Your task to perform on an android device: What's the price of the new iPhone Image 0: 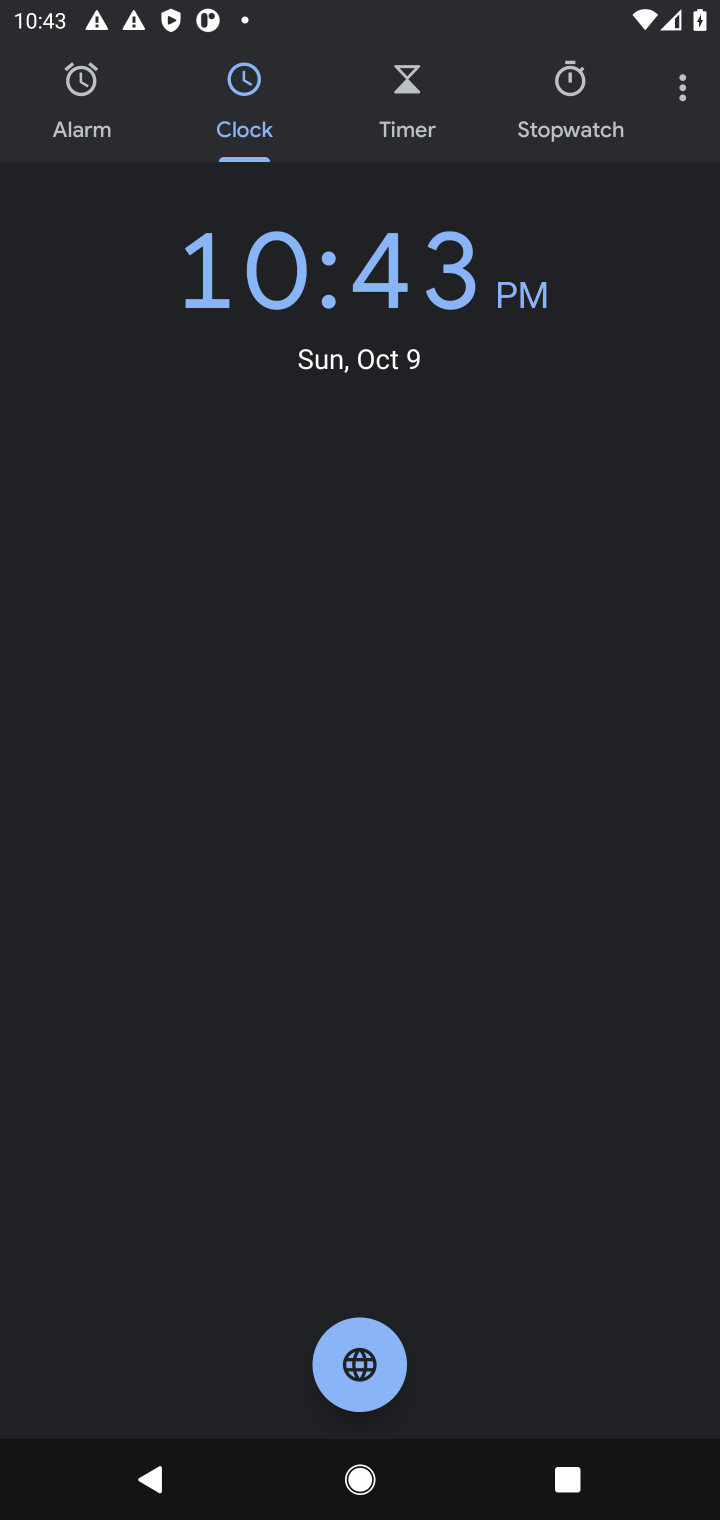
Step 0: press home button
Your task to perform on an android device: What's the price of the new iPhone Image 1: 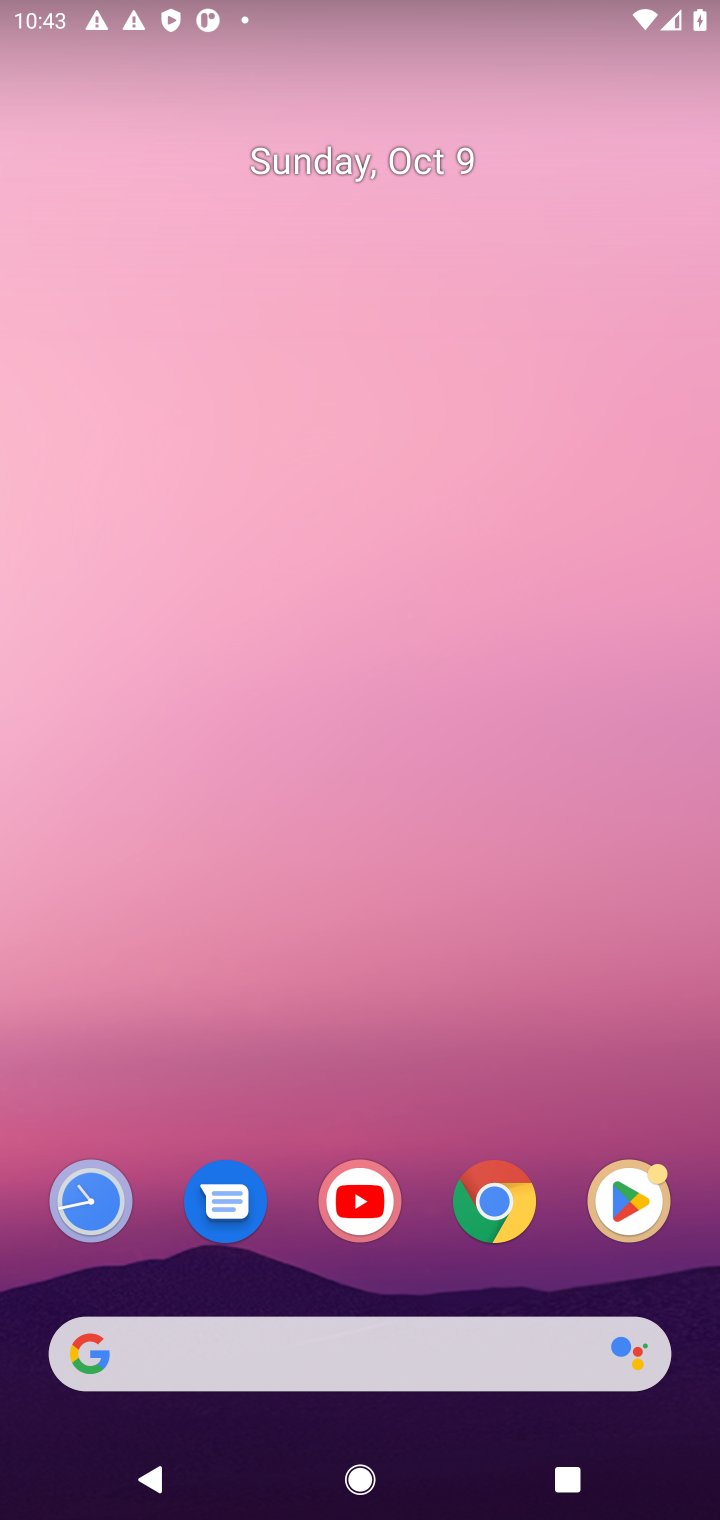
Step 1: click (476, 1199)
Your task to perform on an android device: What's the price of the new iPhone Image 2: 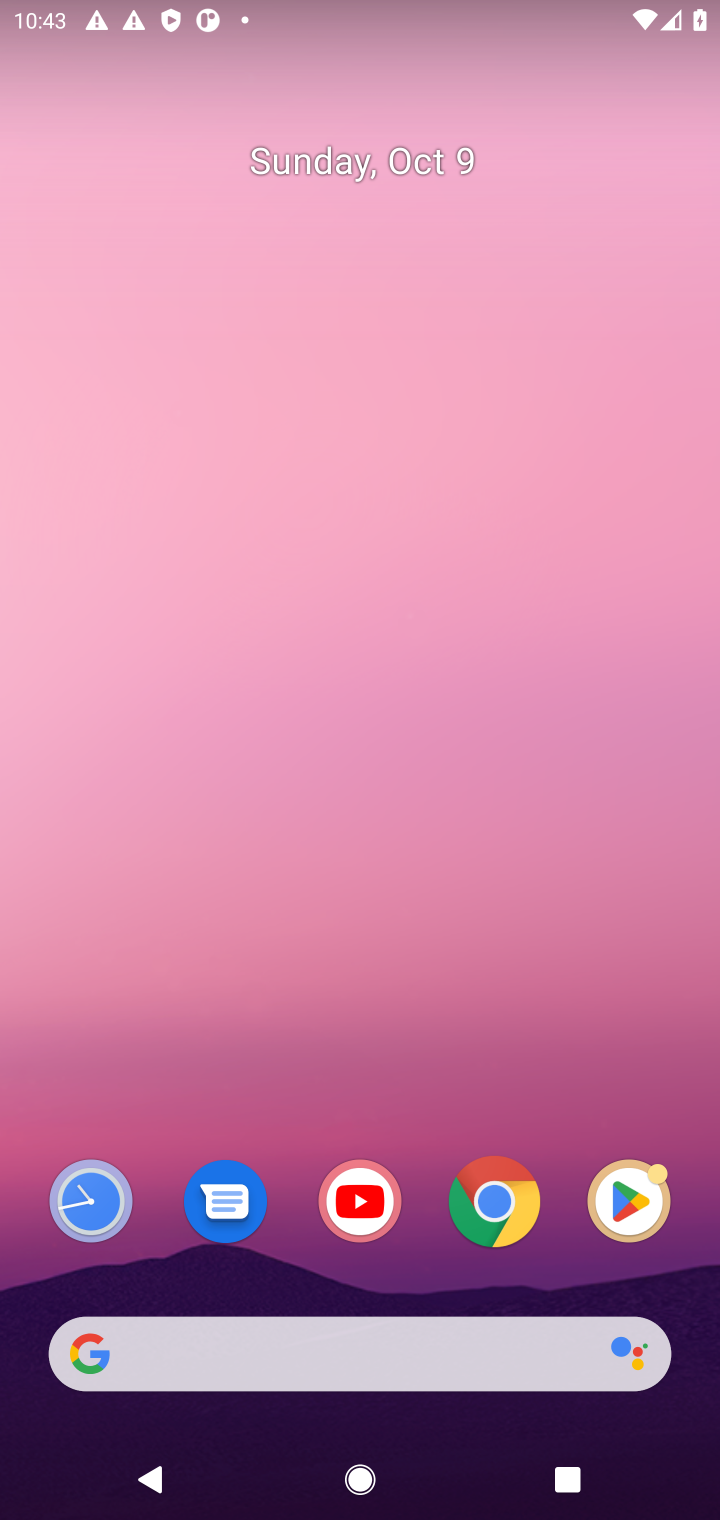
Step 2: click (476, 1199)
Your task to perform on an android device: What's the price of the new iPhone Image 3: 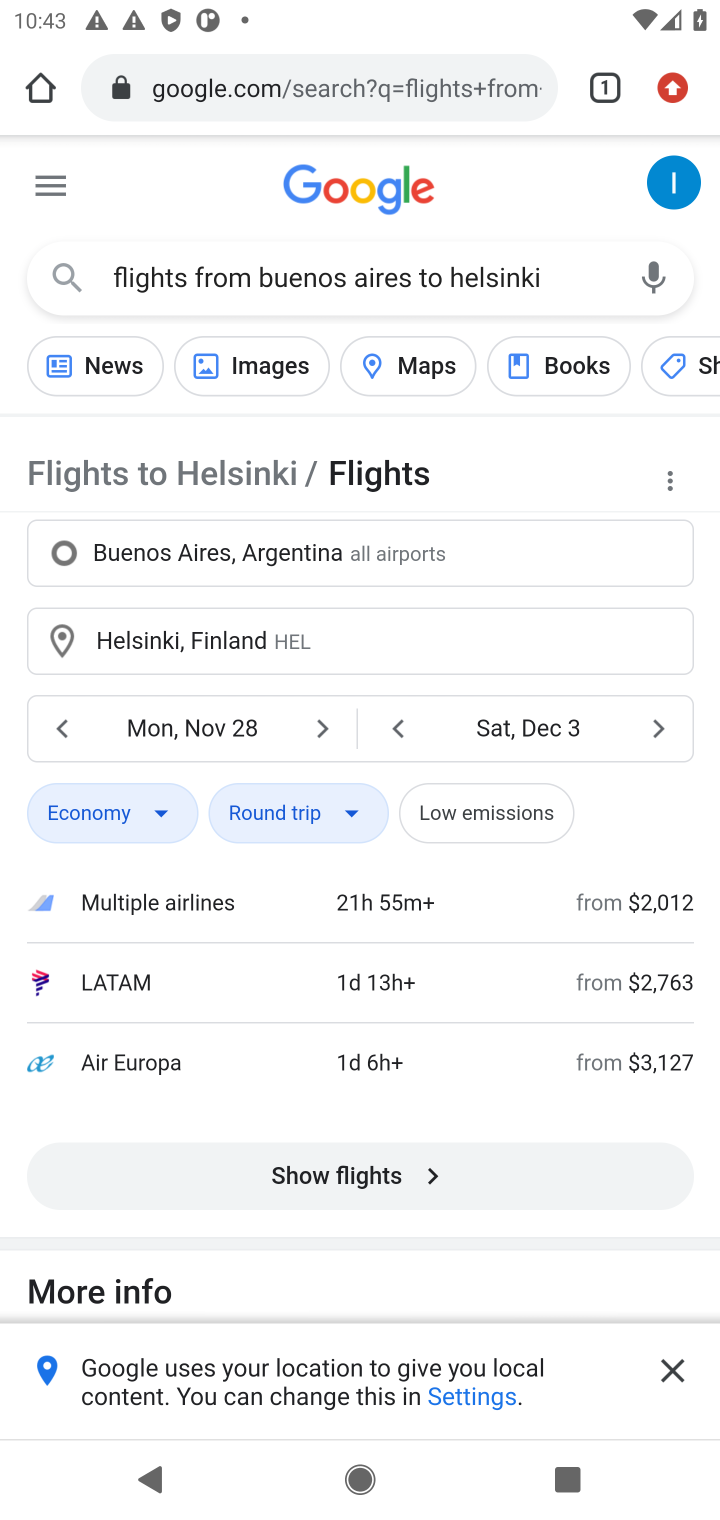
Step 3: click (348, 87)
Your task to perform on an android device: What's the price of the new iPhone Image 4: 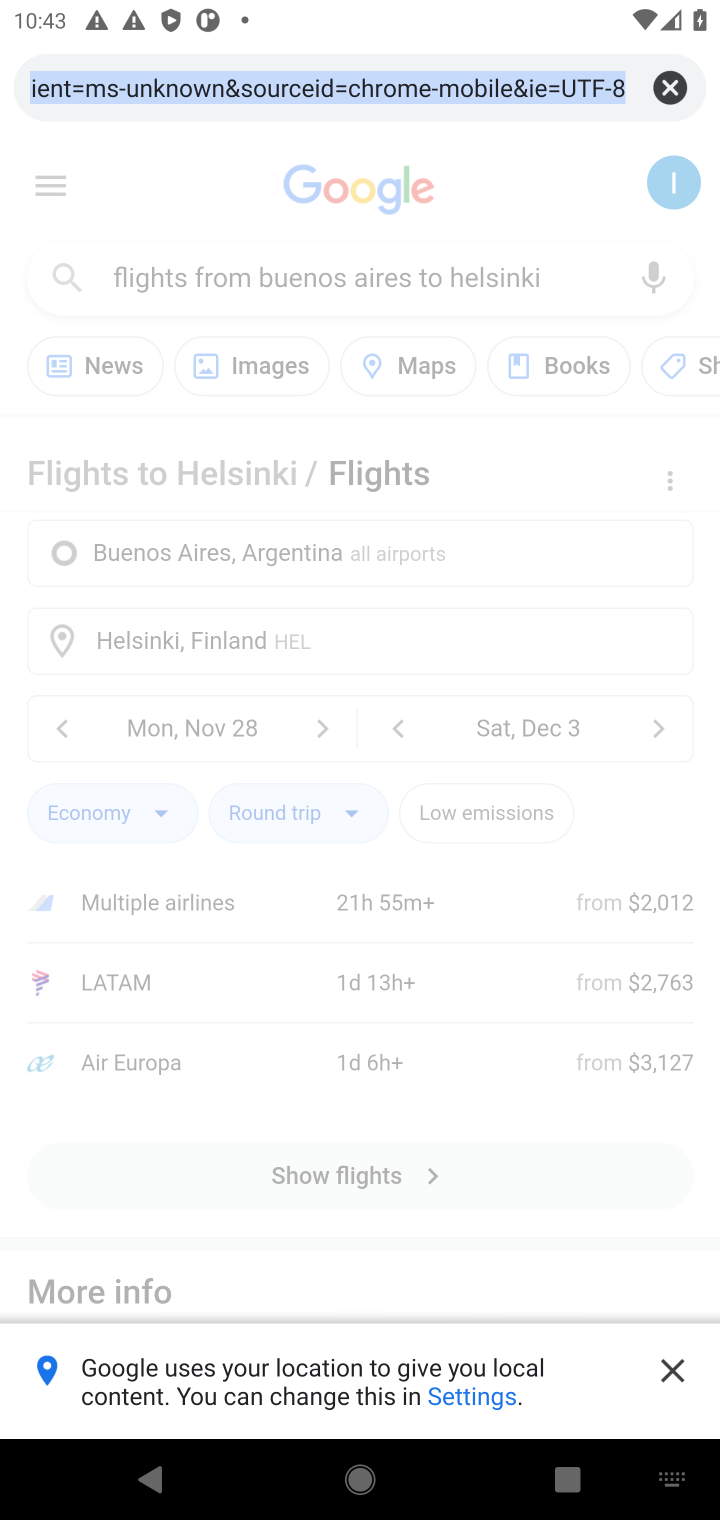
Step 4: click (659, 89)
Your task to perform on an android device: What's the price of the new iPhone Image 5: 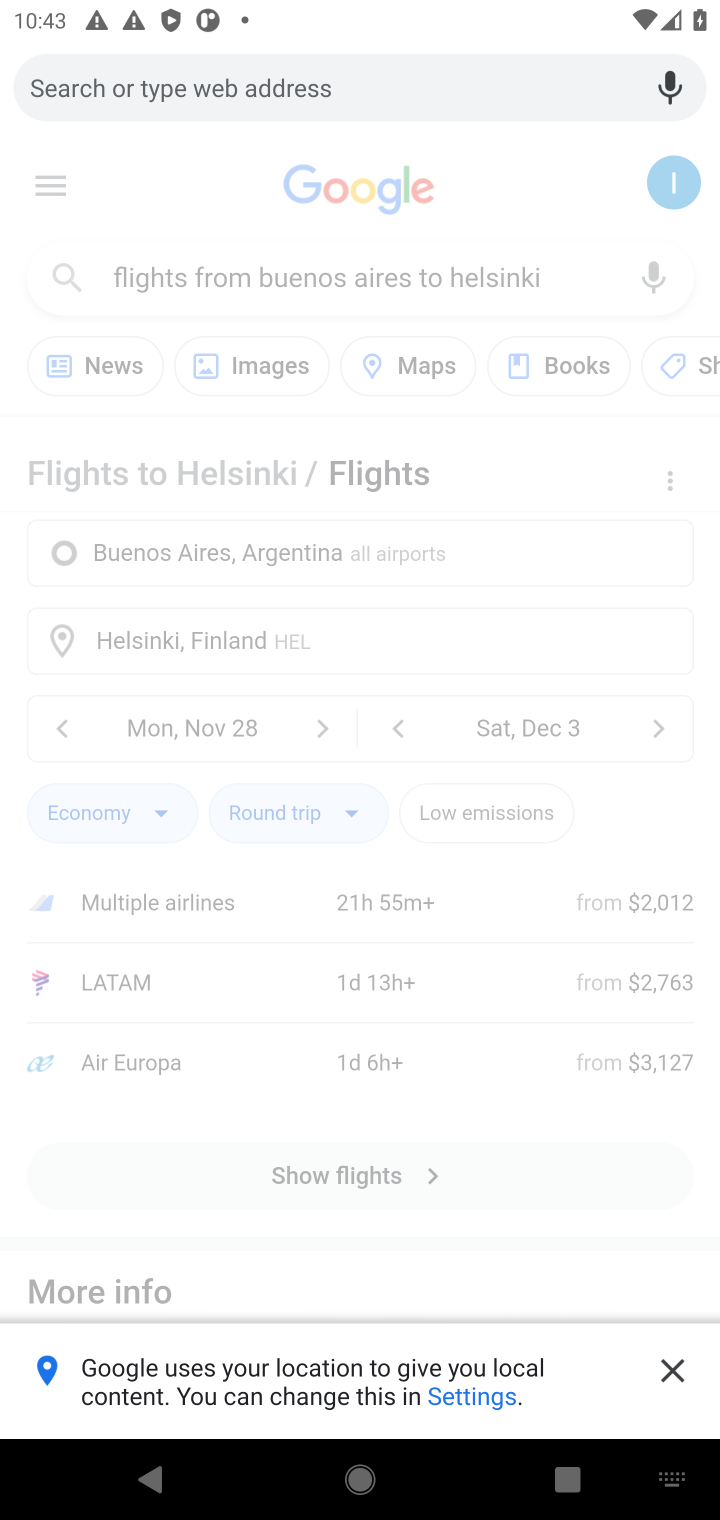
Step 5: click (459, 78)
Your task to perform on an android device: What's the price of the new iPhone Image 6: 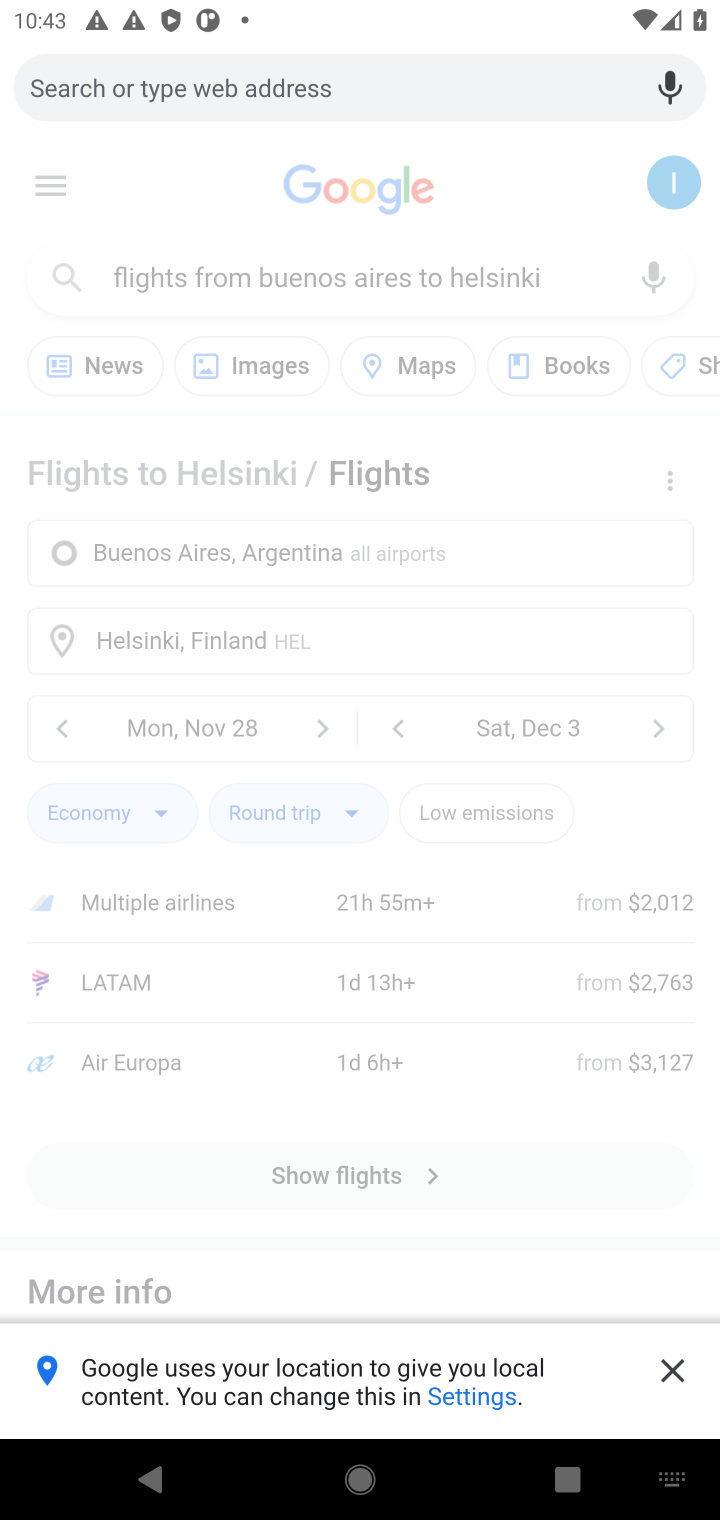
Step 6: type "whats the price of the new iphone"
Your task to perform on an android device: What's the price of the new iPhone Image 7: 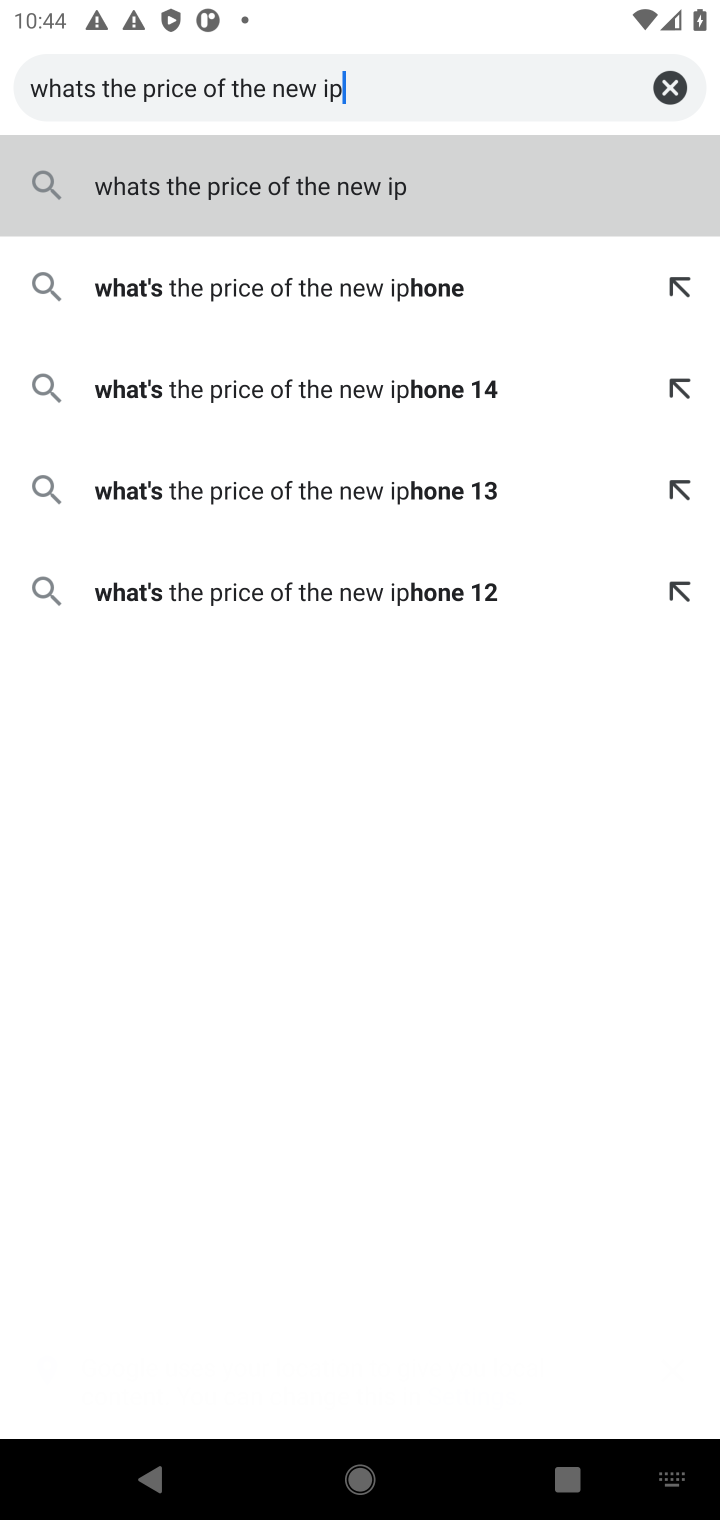
Step 7: type "hone"
Your task to perform on an android device: What's the price of the new iPhone Image 8: 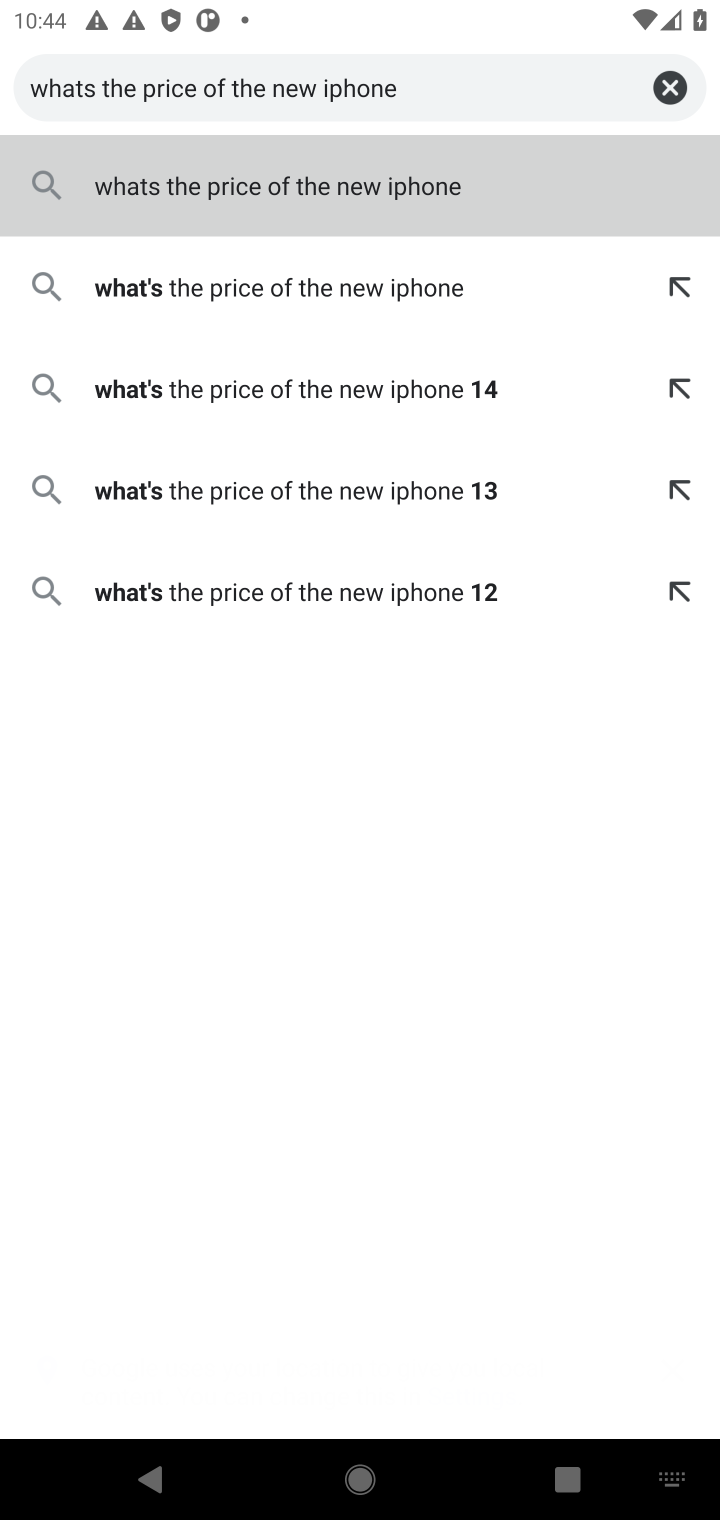
Step 8: click (332, 200)
Your task to perform on an android device: What's the price of the new iPhone Image 9: 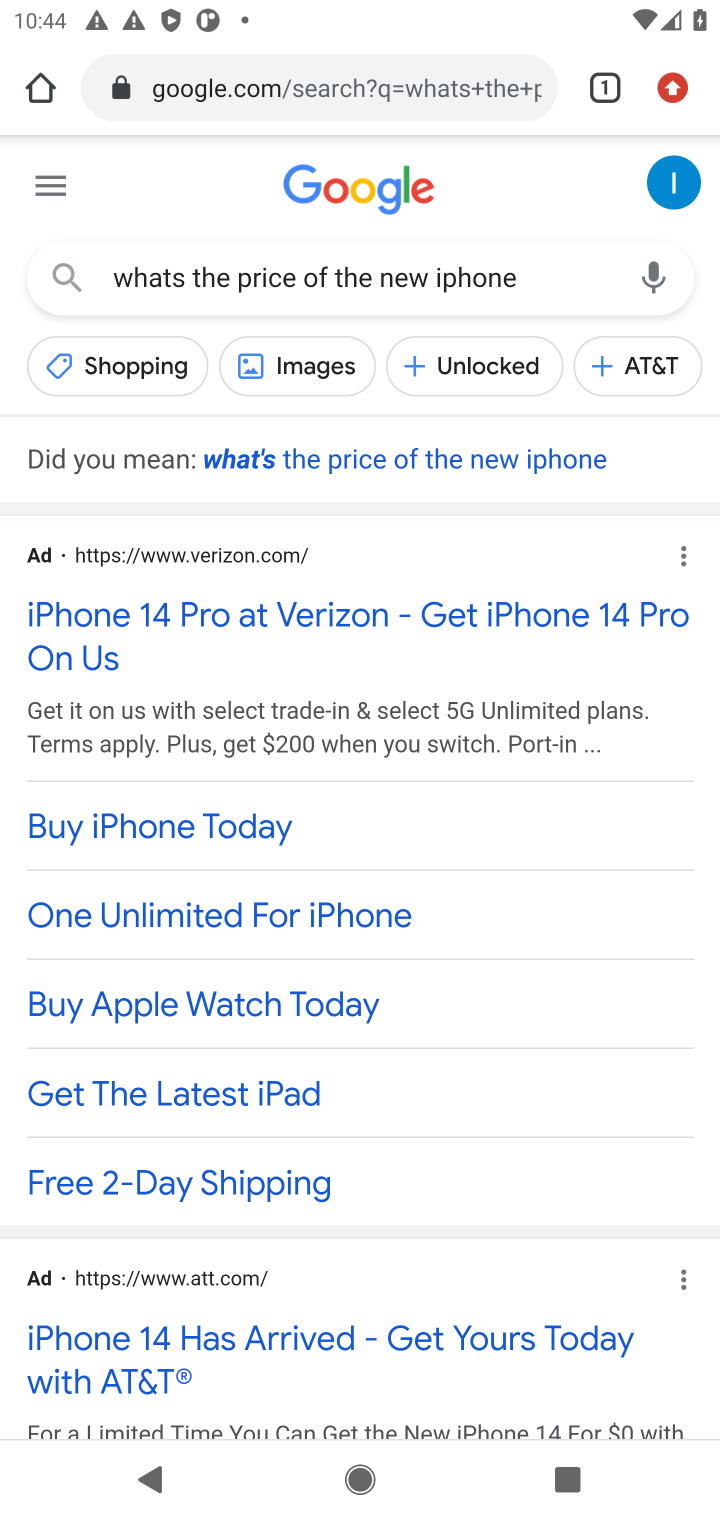
Step 9: task complete